Your task to perform on an android device: Empty the shopping cart on costco. Image 0: 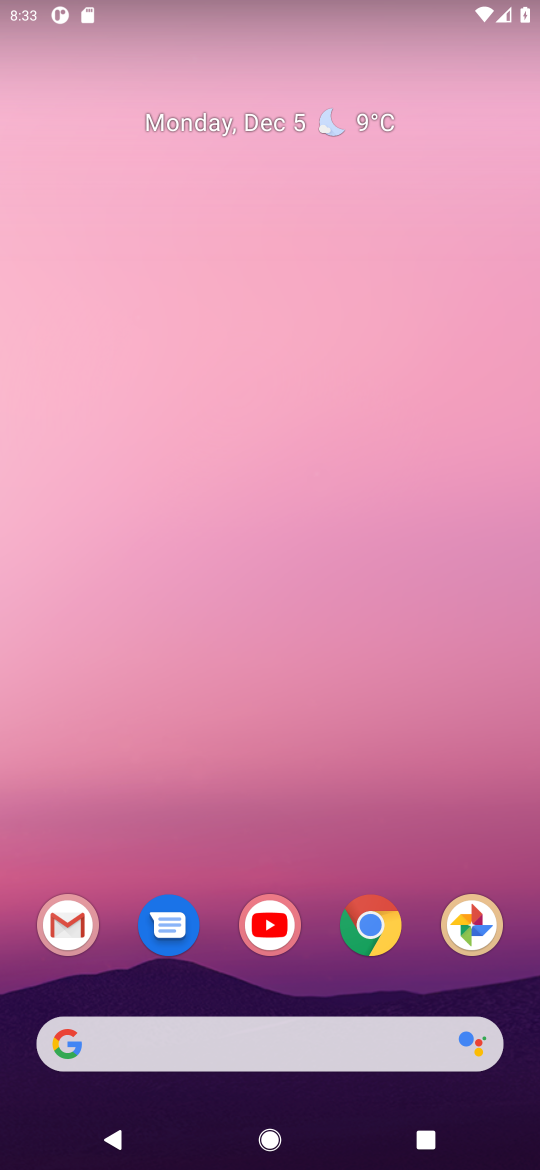
Step 0: click (372, 928)
Your task to perform on an android device: Empty the shopping cart on costco. Image 1: 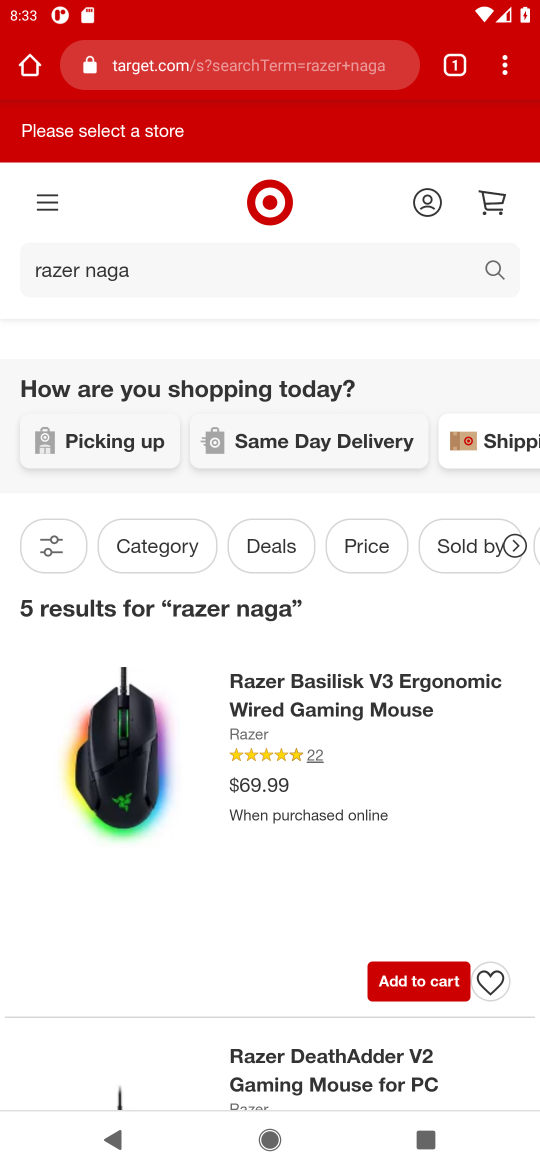
Step 1: click (234, 63)
Your task to perform on an android device: Empty the shopping cart on costco. Image 2: 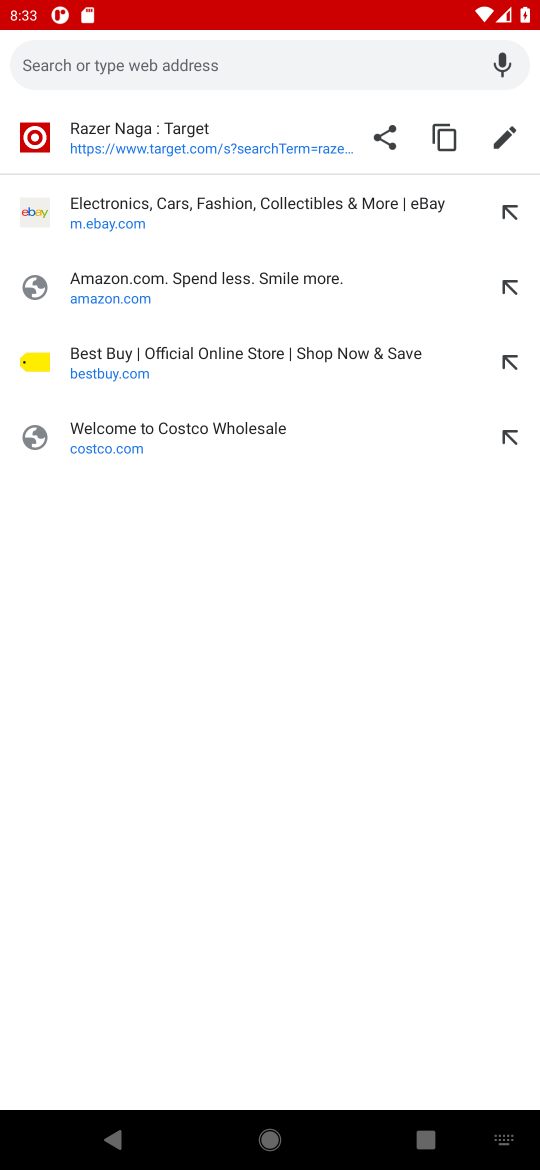
Step 2: click (99, 449)
Your task to perform on an android device: Empty the shopping cart on costco. Image 3: 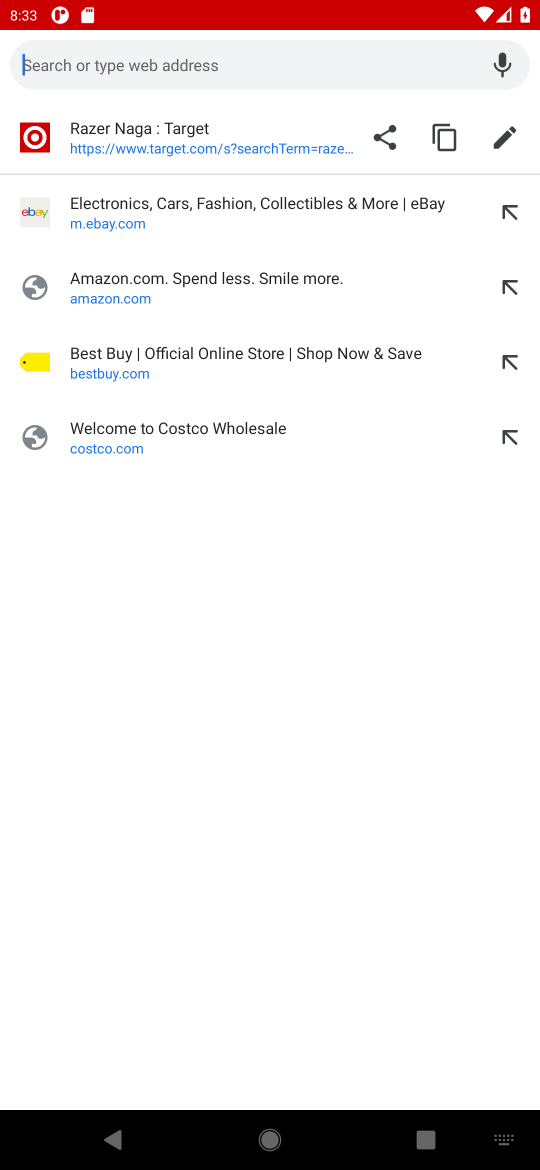
Step 3: click (119, 433)
Your task to perform on an android device: Empty the shopping cart on costco. Image 4: 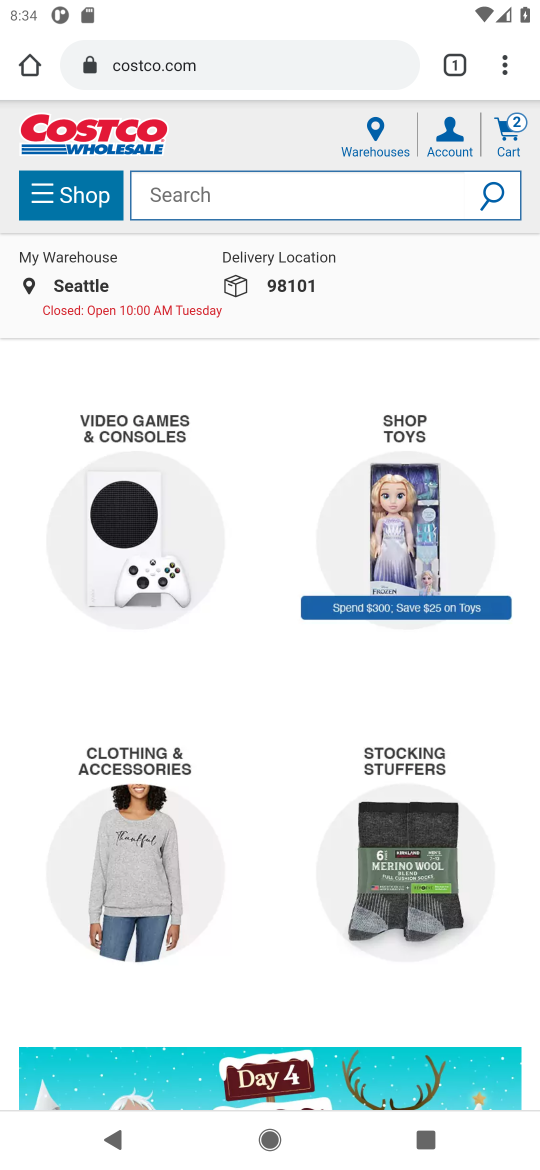
Step 4: click (508, 127)
Your task to perform on an android device: Empty the shopping cart on costco. Image 5: 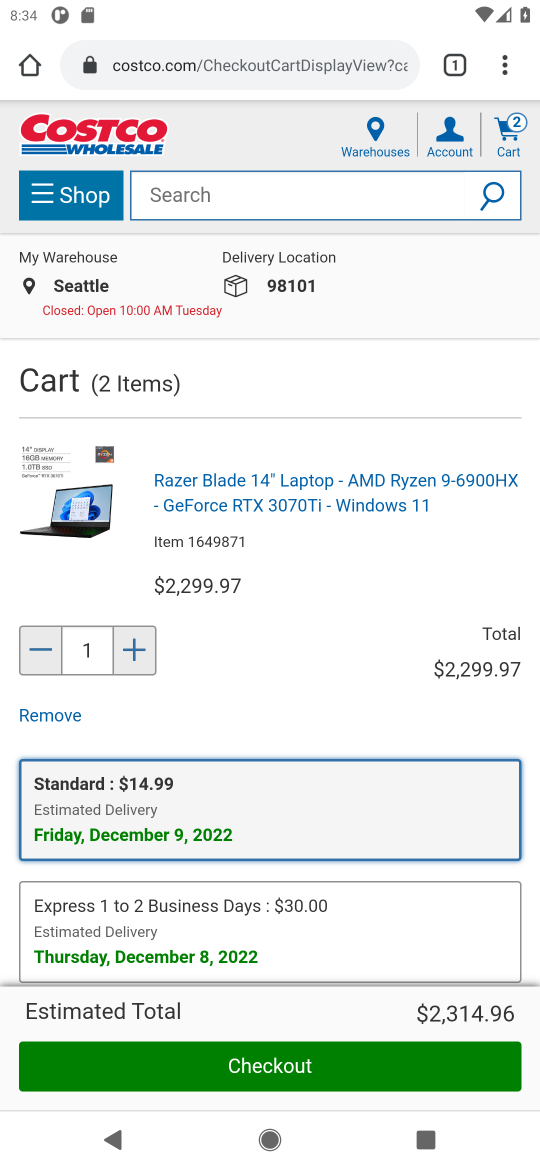
Step 5: drag from (302, 758) to (322, 492)
Your task to perform on an android device: Empty the shopping cart on costco. Image 6: 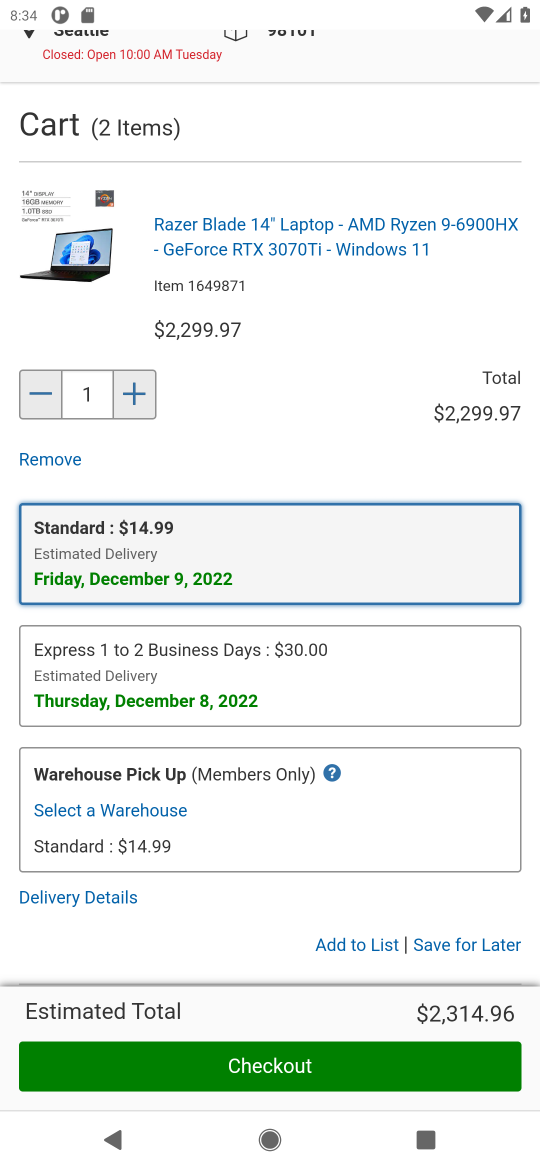
Step 6: click (476, 947)
Your task to perform on an android device: Empty the shopping cart on costco. Image 7: 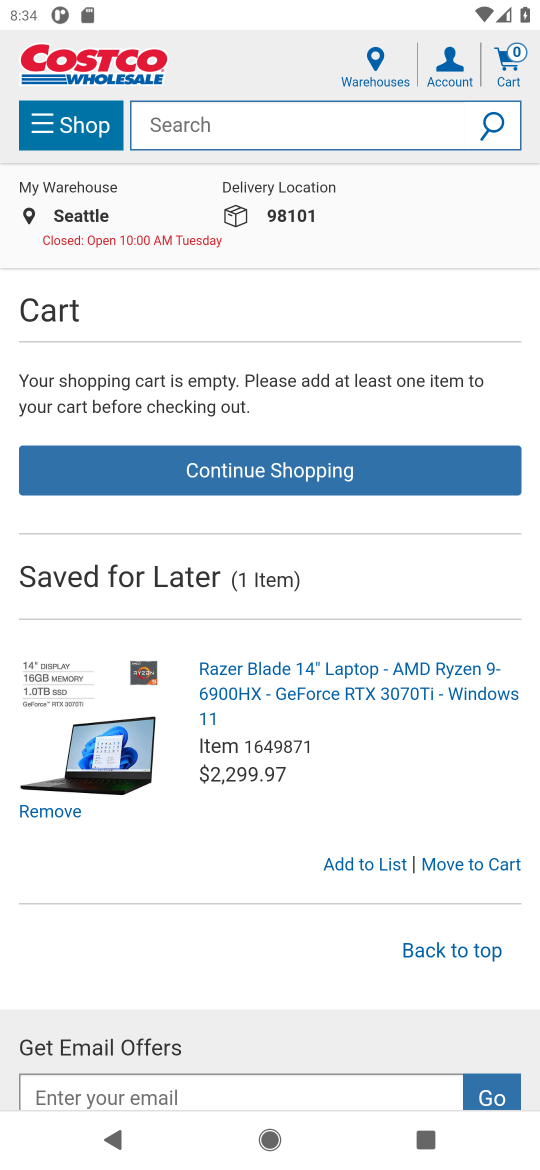
Step 7: task complete